Your task to perform on an android device: Open CNN.com Image 0: 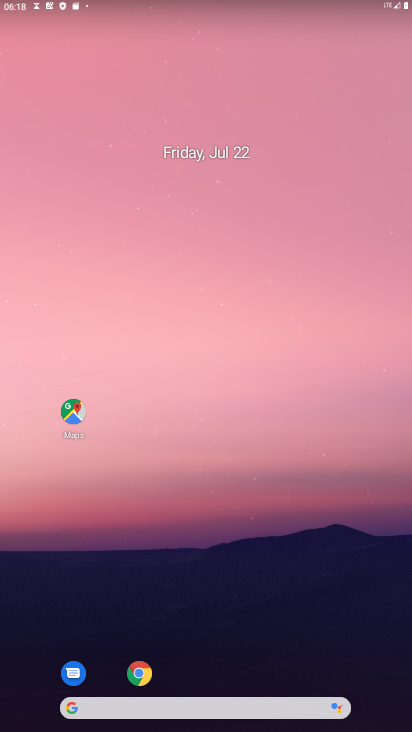
Step 0: press home button
Your task to perform on an android device: Open CNN.com Image 1: 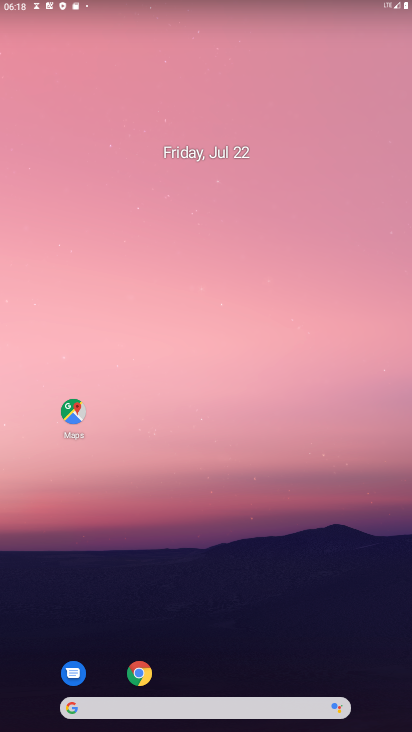
Step 1: click (79, 707)
Your task to perform on an android device: Open CNN.com Image 2: 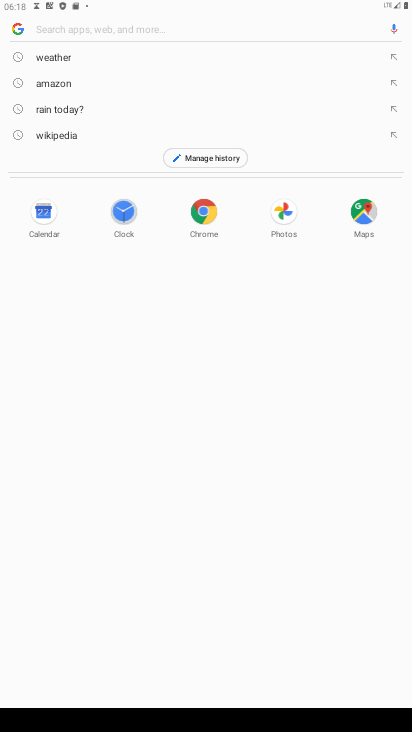
Step 2: type "CNN.com"
Your task to perform on an android device: Open CNN.com Image 3: 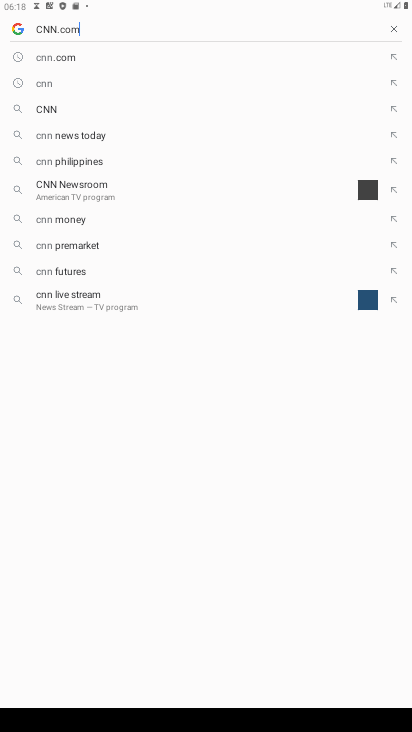
Step 3: press enter
Your task to perform on an android device: Open CNN.com Image 4: 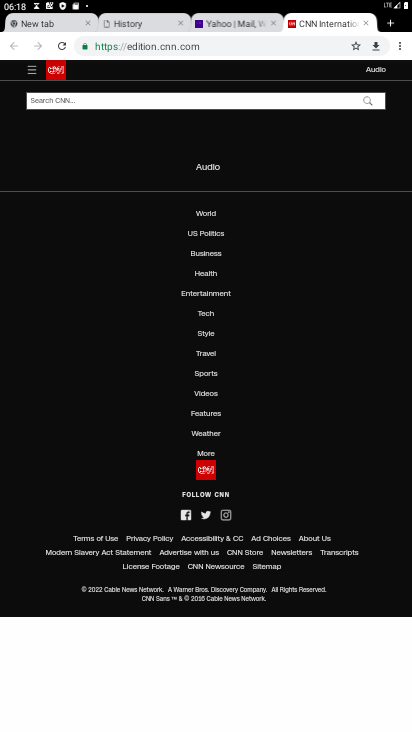
Step 4: task complete